Your task to perform on an android device: Open Google Maps Image 0: 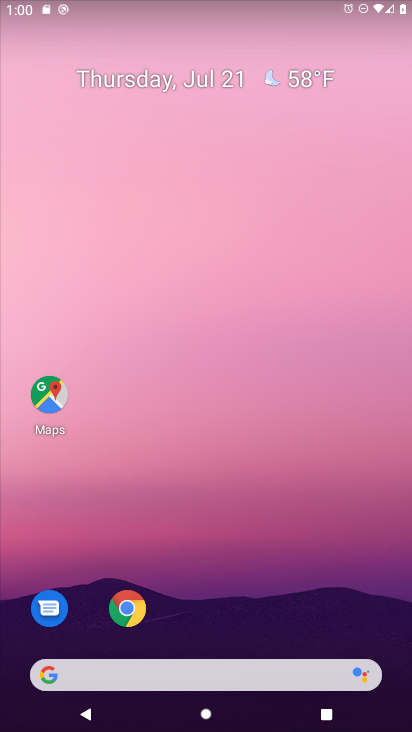
Step 0: press home button
Your task to perform on an android device: Open Google Maps Image 1: 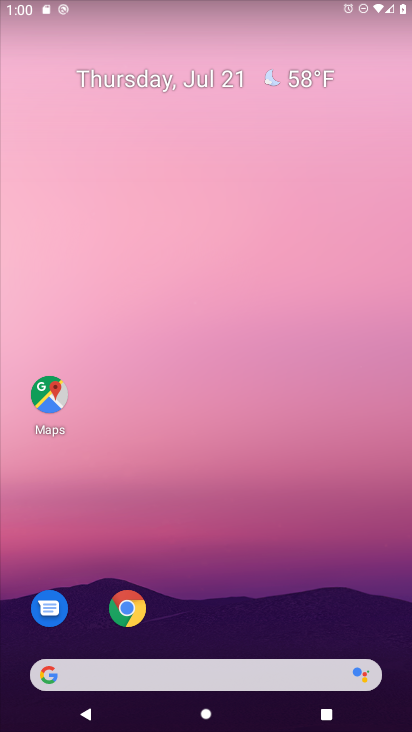
Step 1: drag from (248, 638) to (259, 74)
Your task to perform on an android device: Open Google Maps Image 2: 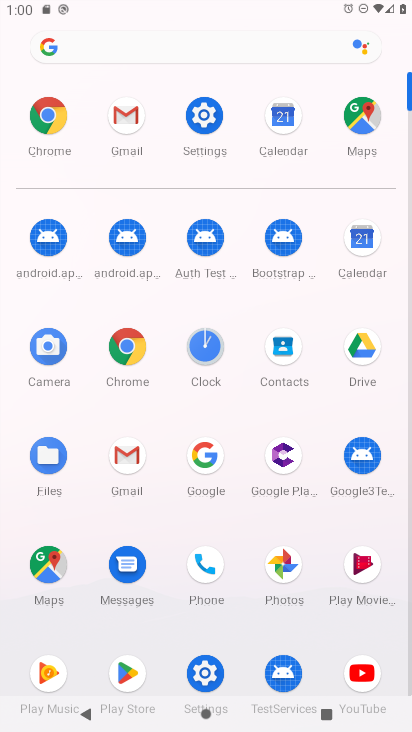
Step 2: click (369, 123)
Your task to perform on an android device: Open Google Maps Image 3: 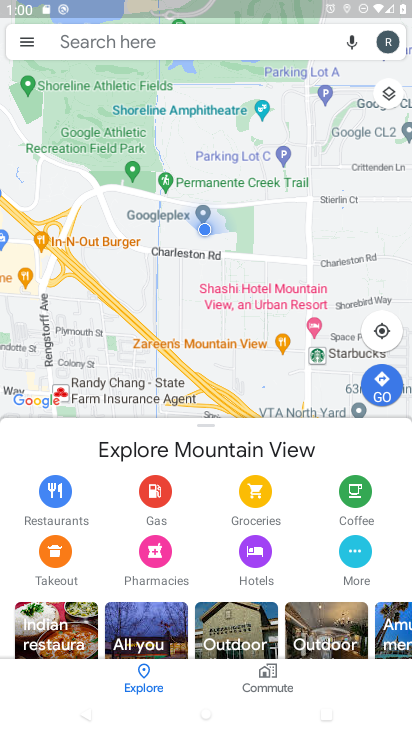
Step 3: task complete